Your task to perform on an android device: Open my contact list Image 0: 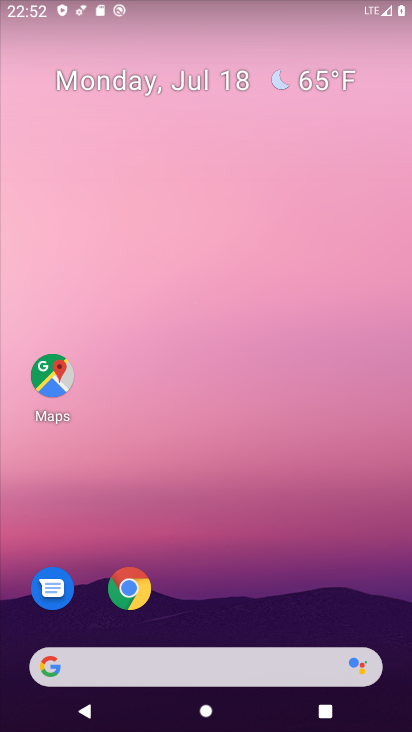
Step 0: press home button
Your task to perform on an android device: Open my contact list Image 1: 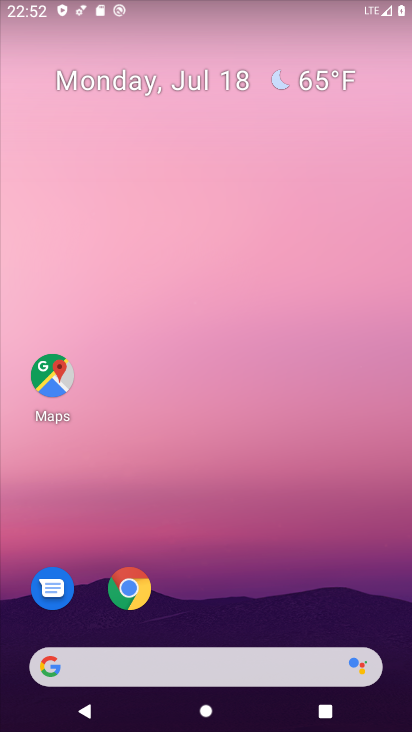
Step 1: drag from (303, 609) to (293, 115)
Your task to perform on an android device: Open my contact list Image 2: 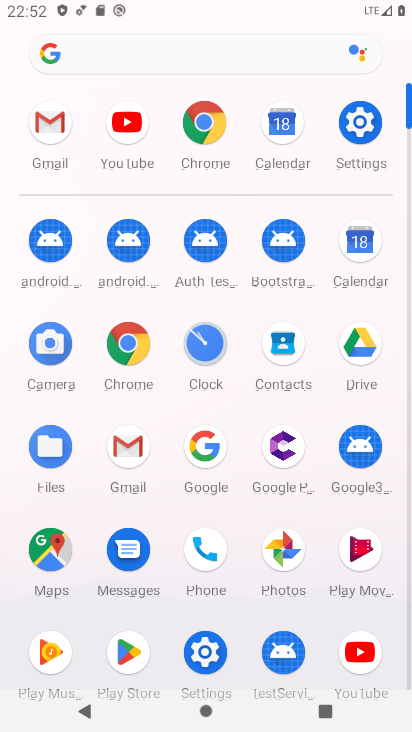
Step 2: click (279, 337)
Your task to perform on an android device: Open my contact list Image 3: 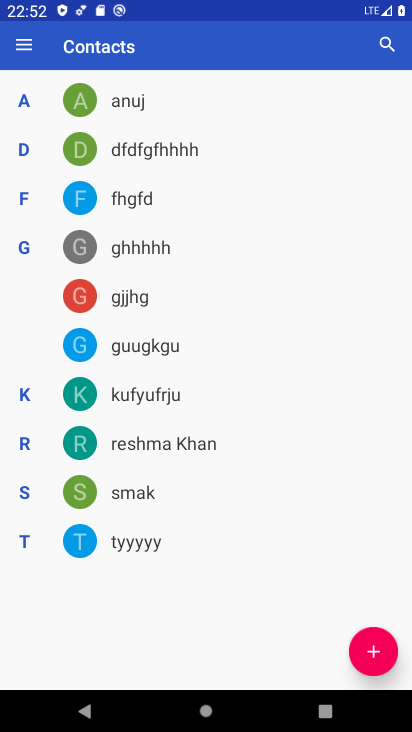
Step 3: task complete